Your task to perform on an android device: check storage Image 0: 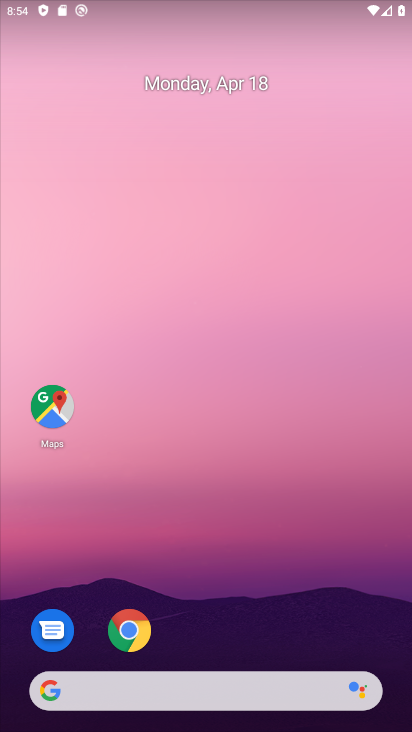
Step 0: drag from (281, 624) to (227, 58)
Your task to perform on an android device: check storage Image 1: 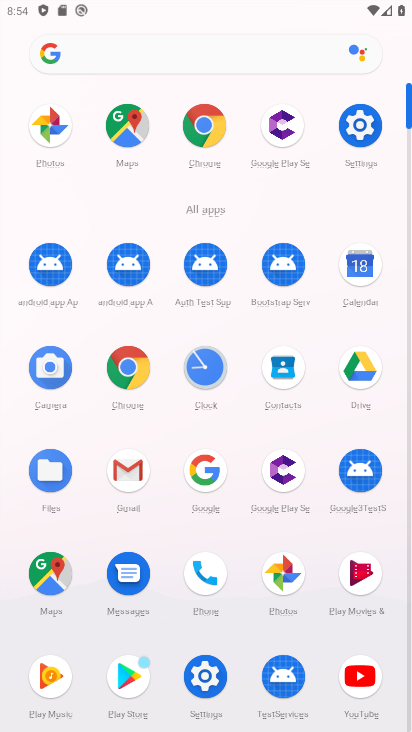
Step 1: click (360, 136)
Your task to perform on an android device: check storage Image 2: 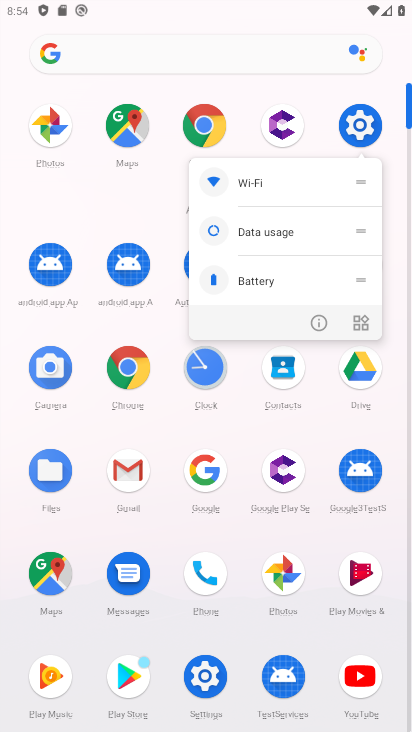
Step 2: click (360, 136)
Your task to perform on an android device: check storage Image 3: 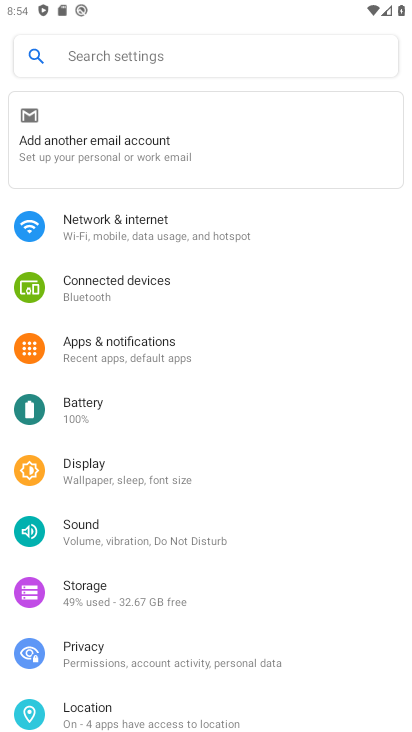
Step 3: click (120, 583)
Your task to perform on an android device: check storage Image 4: 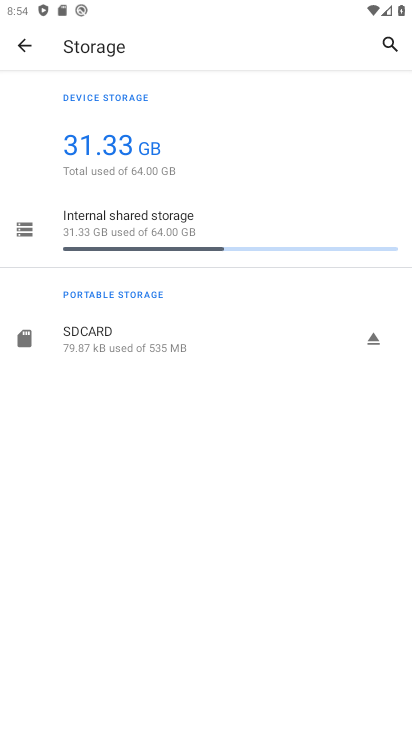
Step 4: task complete